Your task to perform on an android device: What's on my calendar today? Image 0: 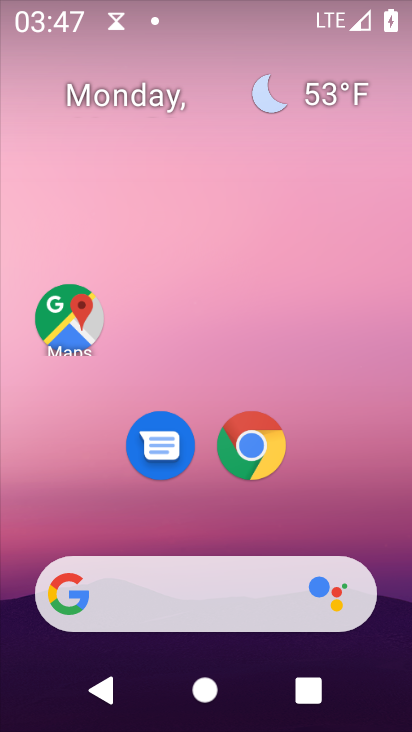
Step 0: drag from (224, 492) to (227, 130)
Your task to perform on an android device: What's on my calendar today? Image 1: 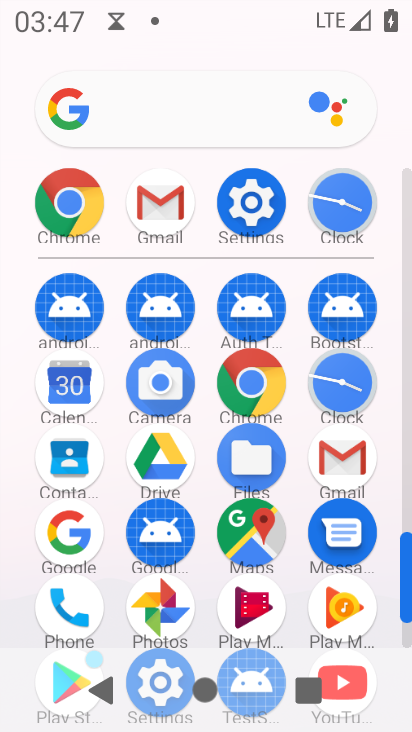
Step 1: click (75, 387)
Your task to perform on an android device: What's on my calendar today? Image 2: 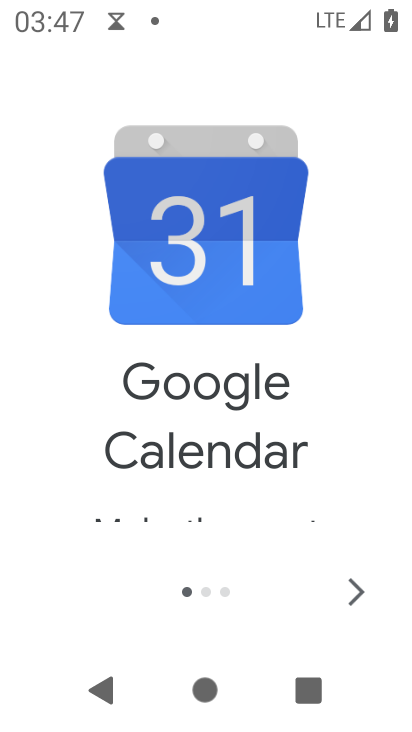
Step 2: click (350, 592)
Your task to perform on an android device: What's on my calendar today? Image 3: 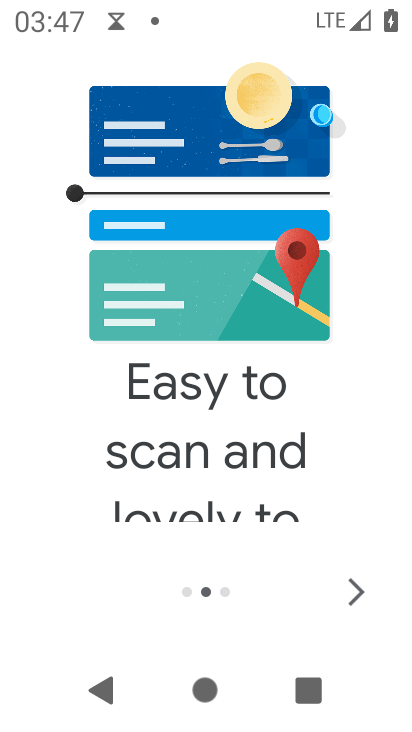
Step 3: click (349, 591)
Your task to perform on an android device: What's on my calendar today? Image 4: 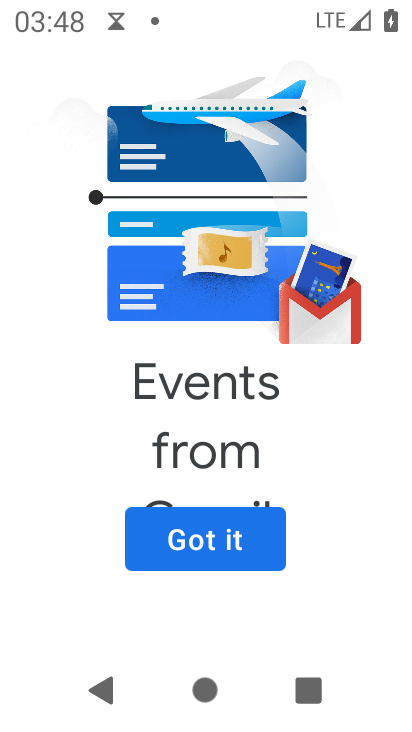
Step 4: click (235, 549)
Your task to perform on an android device: What's on my calendar today? Image 5: 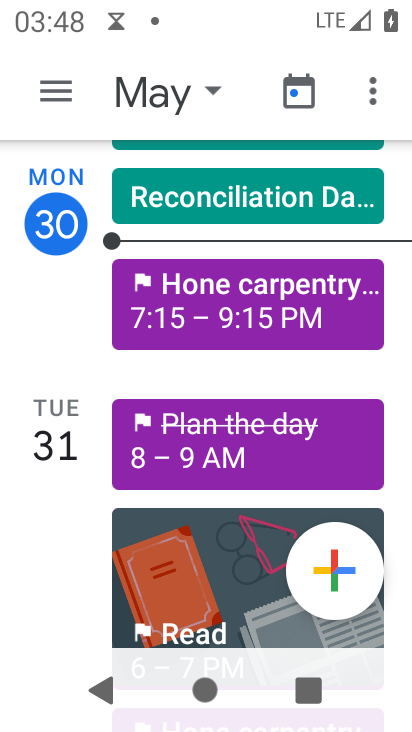
Step 5: click (64, 99)
Your task to perform on an android device: What's on my calendar today? Image 6: 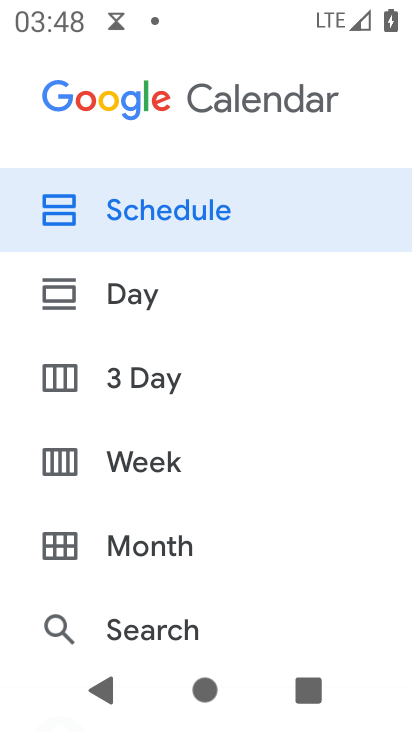
Step 6: click (133, 303)
Your task to perform on an android device: What's on my calendar today? Image 7: 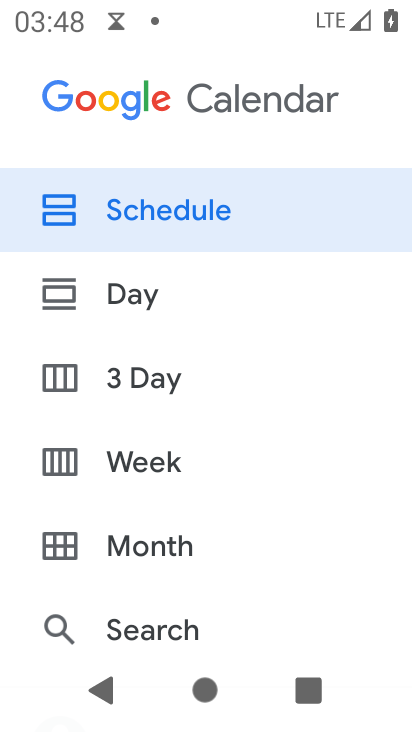
Step 7: click (147, 293)
Your task to perform on an android device: What's on my calendar today? Image 8: 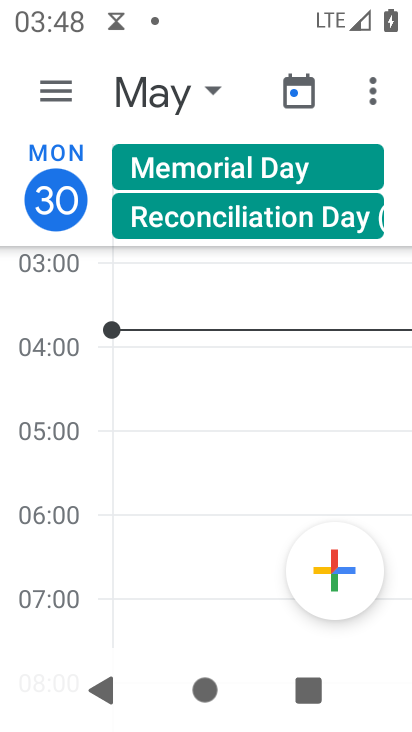
Step 8: task complete